Your task to perform on an android device: Go to Google maps Image 0: 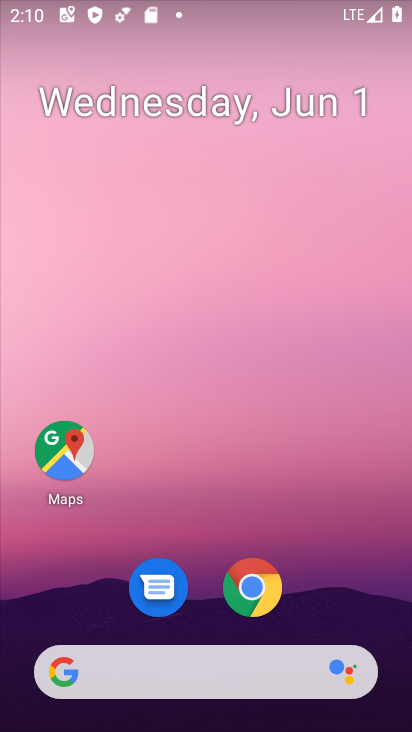
Step 0: click (57, 422)
Your task to perform on an android device: Go to Google maps Image 1: 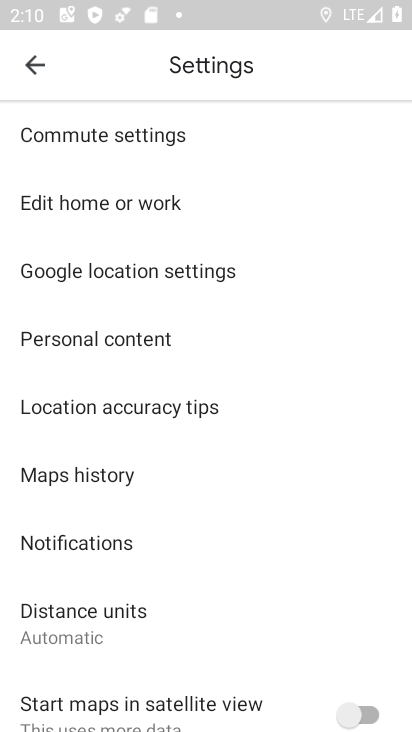
Step 1: task complete